Your task to perform on an android device: open sync settings in chrome Image 0: 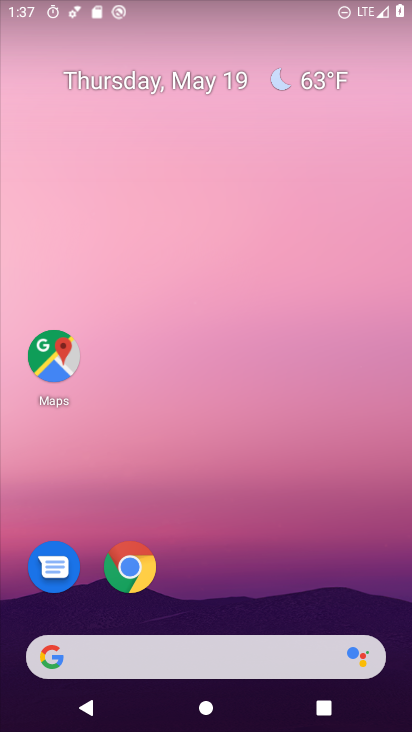
Step 0: press home button
Your task to perform on an android device: open sync settings in chrome Image 1: 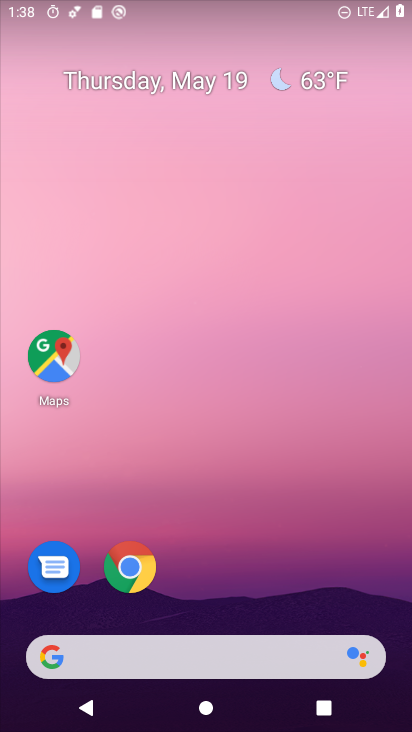
Step 1: click (127, 565)
Your task to perform on an android device: open sync settings in chrome Image 2: 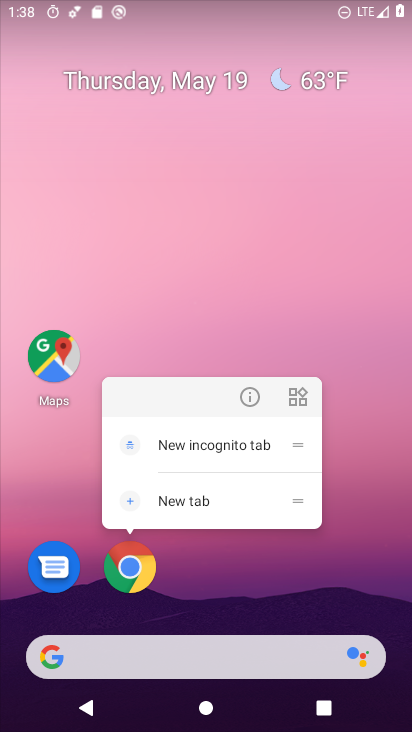
Step 2: click (126, 565)
Your task to perform on an android device: open sync settings in chrome Image 3: 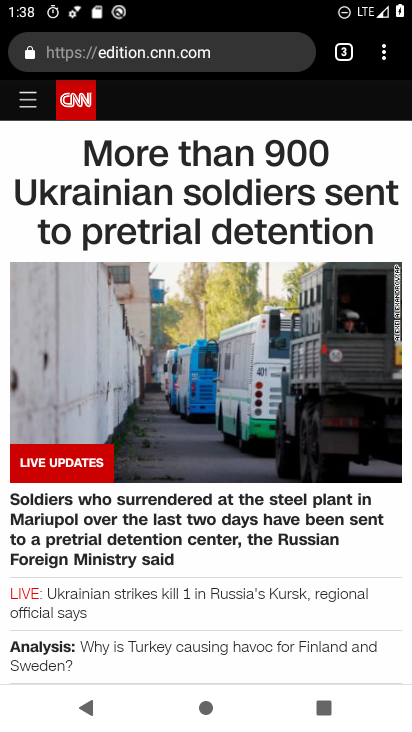
Step 3: drag from (382, 54) to (205, 588)
Your task to perform on an android device: open sync settings in chrome Image 4: 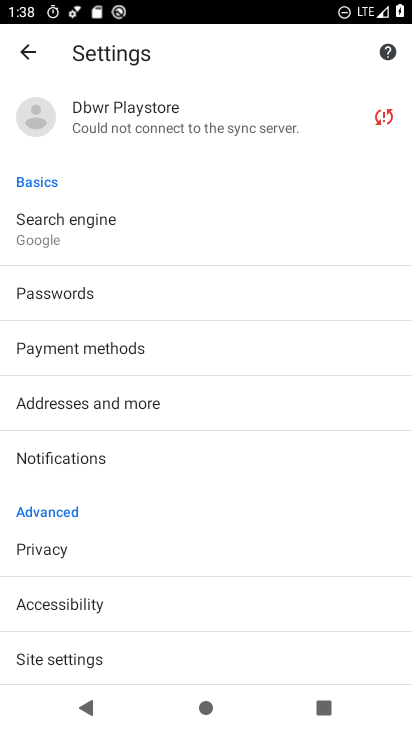
Step 4: click (162, 122)
Your task to perform on an android device: open sync settings in chrome Image 5: 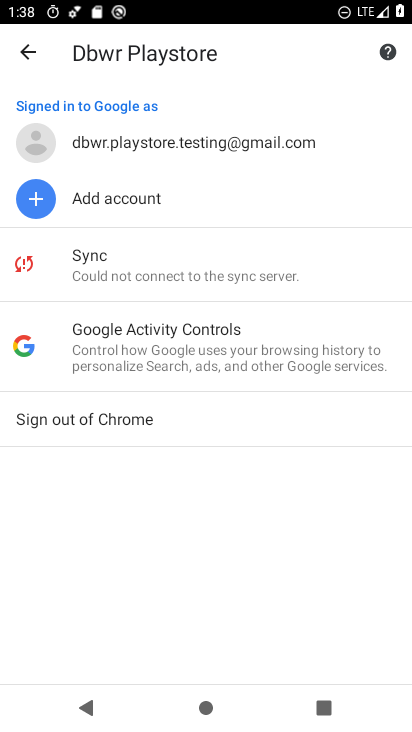
Step 5: click (127, 254)
Your task to perform on an android device: open sync settings in chrome Image 6: 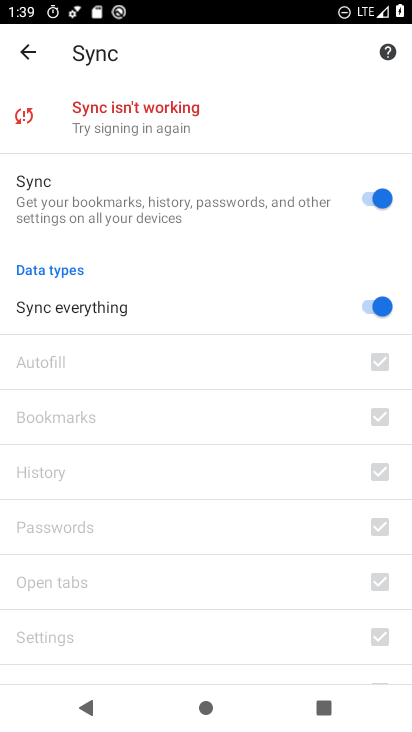
Step 6: task complete